Your task to perform on an android device: turn off translation in the chrome app Image 0: 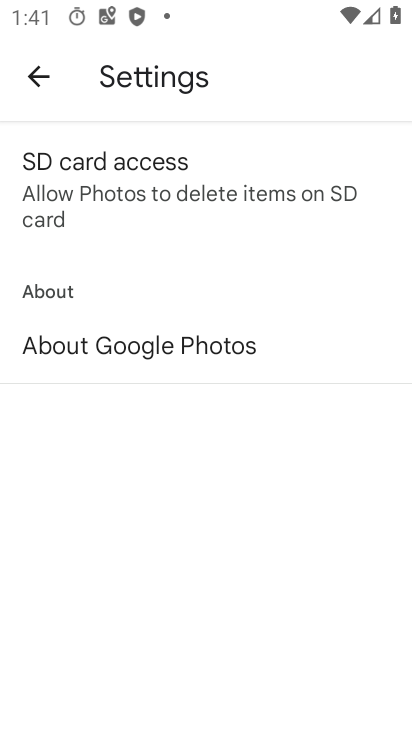
Step 0: press home button
Your task to perform on an android device: turn off translation in the chrome app Image 1: 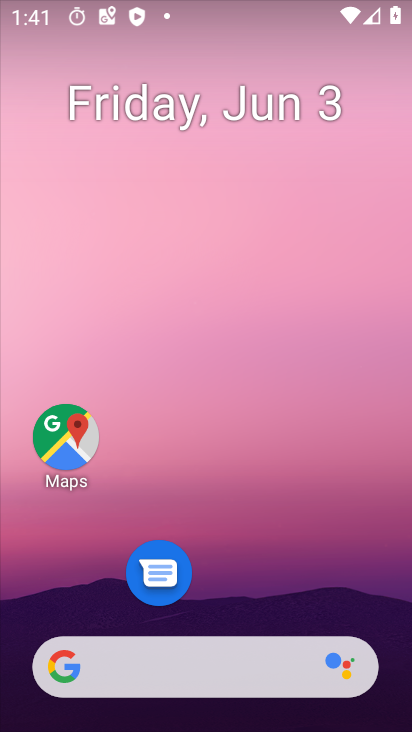
Step 1: drag from (262, 631) to (264, 134)
Your task to perform on an android device: turn off translation in the chrome app Image 2: 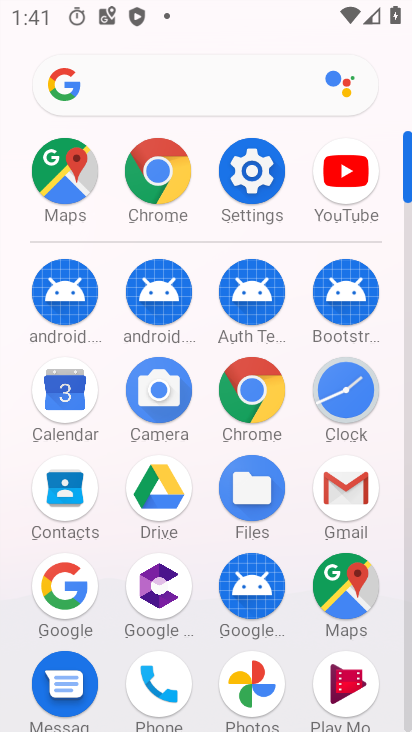
Step 2: click (259, 394)
Your task to perform on an android device: turn off translation in the chrome app Image 3: 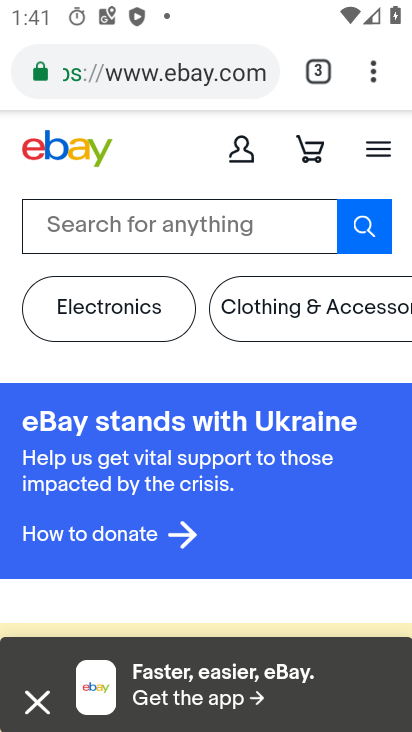
Step 3: drag from (373, 70) to (212, 579)
Your task to perform on an android device: turn off translation in the chrome app Image 4: 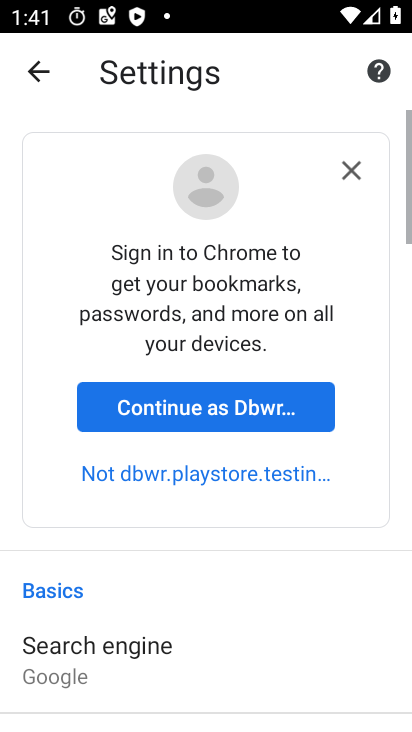
Step 4: drag from (301, 654) to (314, 161)
Your task to perform on an android device: turn off translation in the chrome app Image 5: 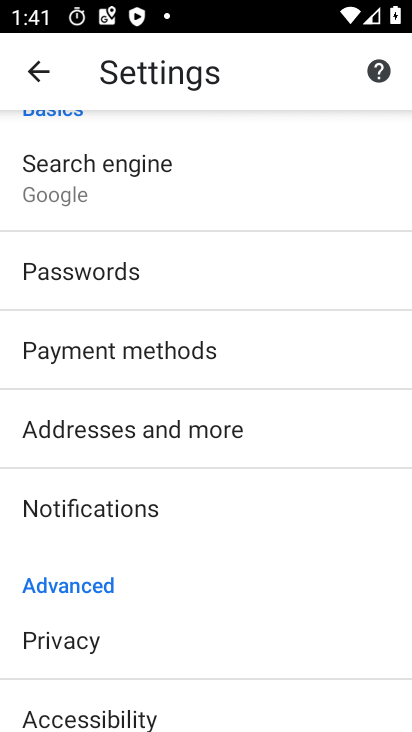
Step 5: drag from (199, 668) to (280, 305)
Your task to perform on an android device: turn off translation in the chrome app Image 6: 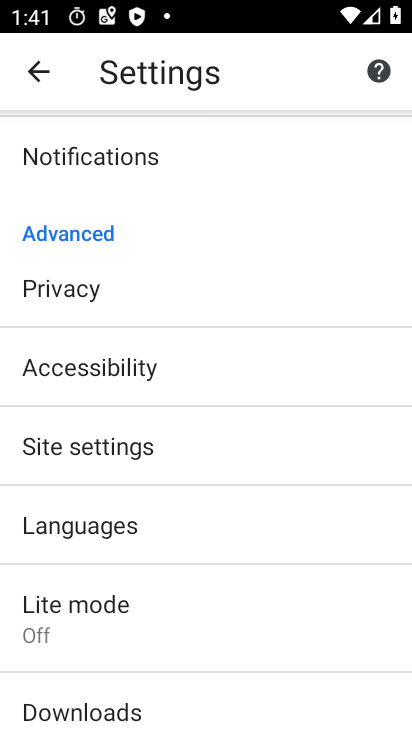
Step 6: click (157, 533)
Your task to perform on an android device: turn off translation in the chrome app Image 7: 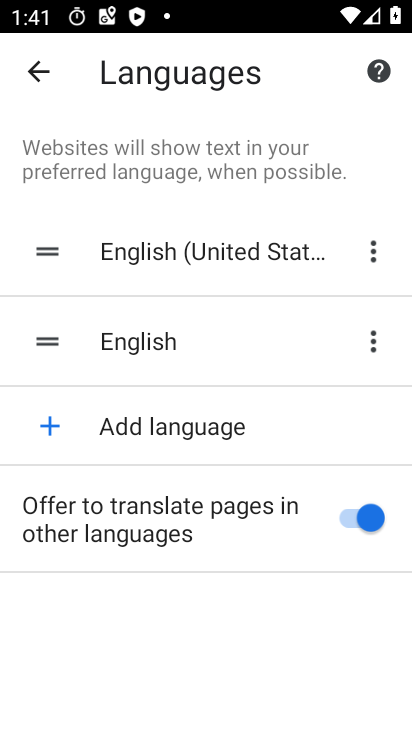
Step 7: click (351, 510)
Your task to perform on an android device: turn off translation in the chrome app Image 8: 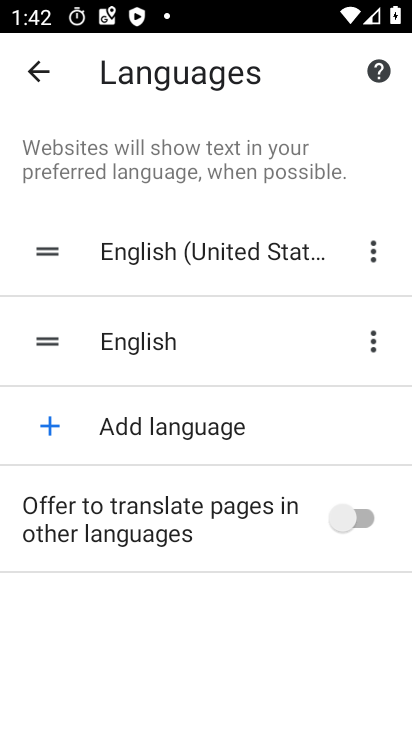
Step 8: task complete